Your task to perform on an android device: Open calendar and show me the third week of next month Image 0: 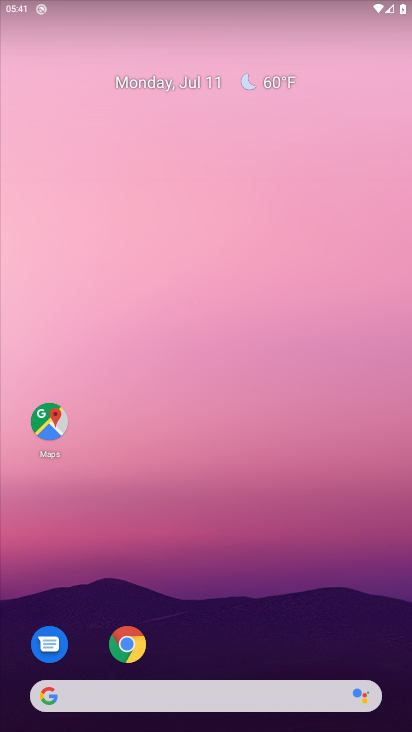
Step 0: drag from (206, 681) to (223, 195)
Your task to perform on an android device: Open calendar and show me the third week of next month Image 1: 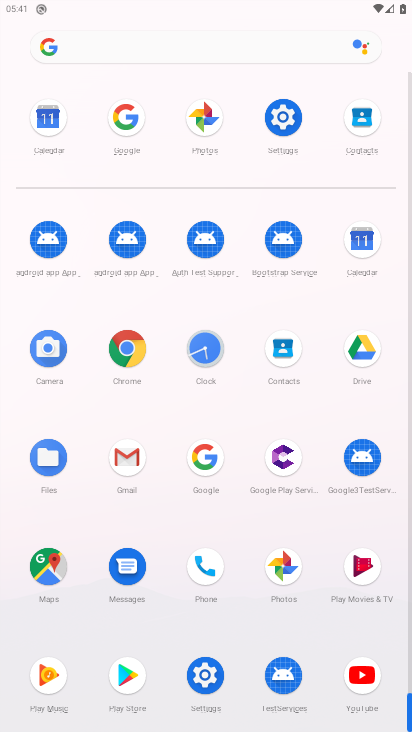
Step 1: click (356, 250)
Your task to perform on an android device: Open calendar and show me the third week of next month Image 2: 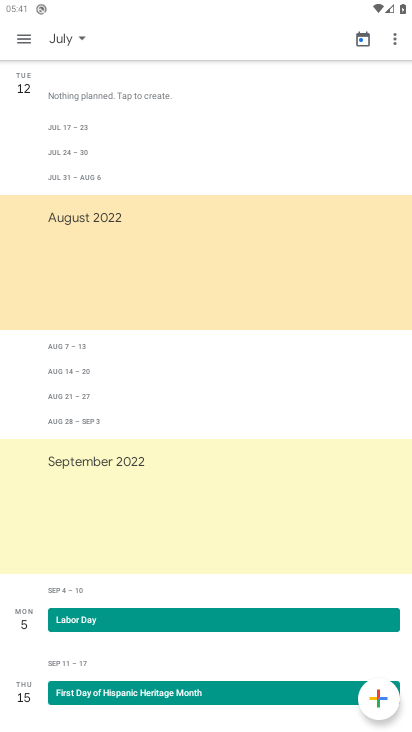
Step 2: click (59, 35)
Your task to perform on an android device: Open calendar and show me the third week of next month Image 3: 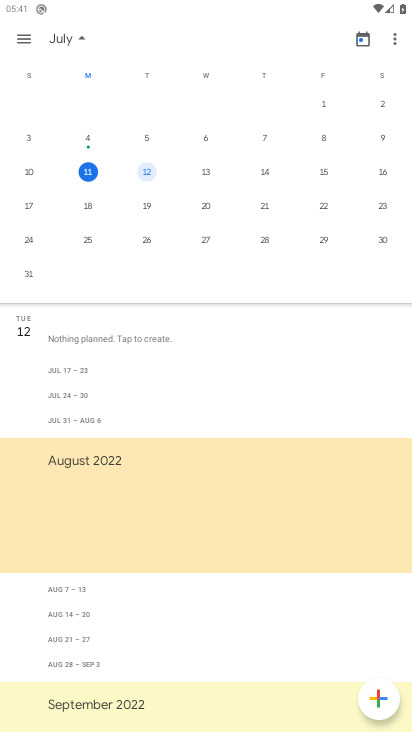
Step 3: drag from (393, 190) to (0, 184)
Your task to perform on an android device: Open calendar and show me the third week of next month Image 4: 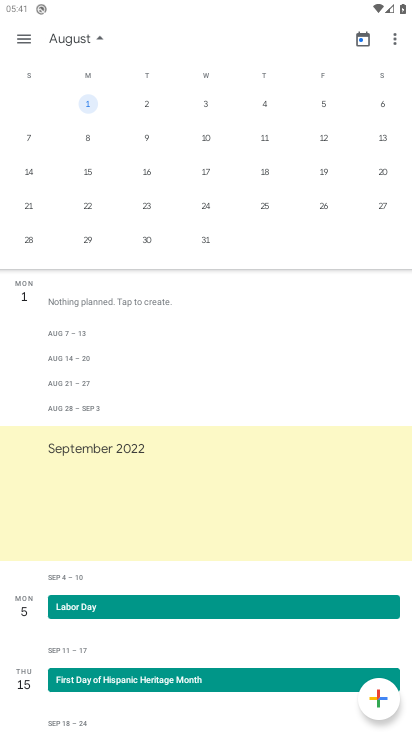
Step 4: click (26, 173)
Your task to perform on an android device: Open calendar and show me the third week of next month Image 5: 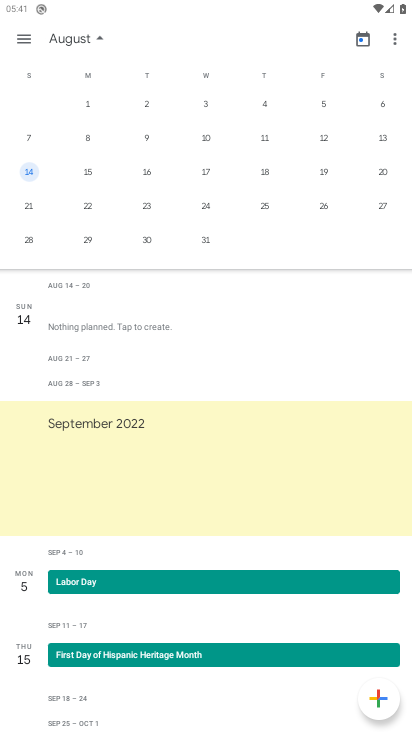
Step 5: task complete